Your task to perform on an android device: Empty the shopping cart on amazon. Search for usb-a on amazon, select the first entry, add it to the cart, then select checkout. Image 0: 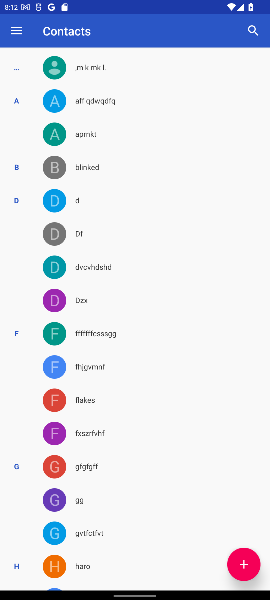
Step 0: press home button
Your task to perform on an android device: Empty the shopping cart on amazon. Search for usb-a on amazon, select the first entry, add it to the cart, then select checkout. Image 1: 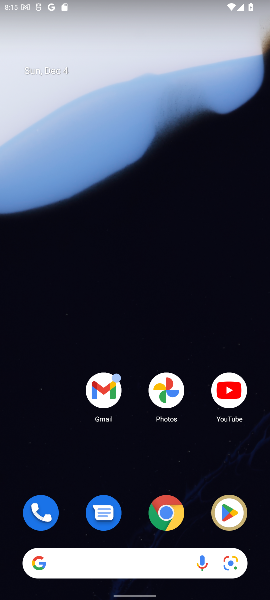
Step 1: click (160, 514)
Your task to perform on an android device: Empty the shopping cart on amazon. Search for usb-a on amazon, select the first entry, add it to the cart, then select checkout. Image 2: 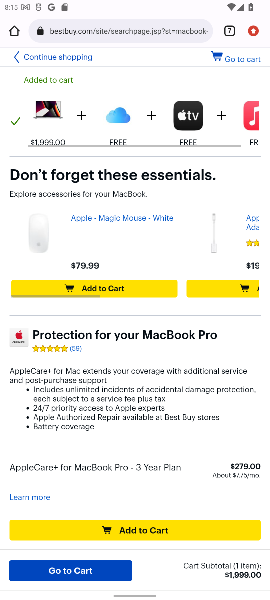
Step 2: click (229, 31)
Your task to perform on an android device: Empty the shopping cart on amazon. Search for usb-a on amazon, select the first entry, add it to the cart, then select checkout. Image 3: 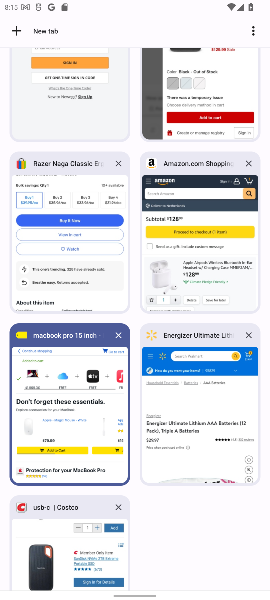
Step 3: click (209, 223)
Your task to perform on an android device: Empty the shopping cart on amazon. Search for usb-a on amazon, select the first entry, add it to the cart, then select checkout. Image 4: 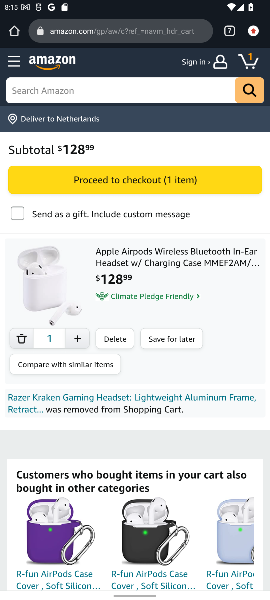
Step 4: click (114, 340)
Your task to perform on an android device: Empty the shopping cart on amazon. Search for usb-a on amazon, select the first entry, add it to the cart, then select checkout. Image 5: 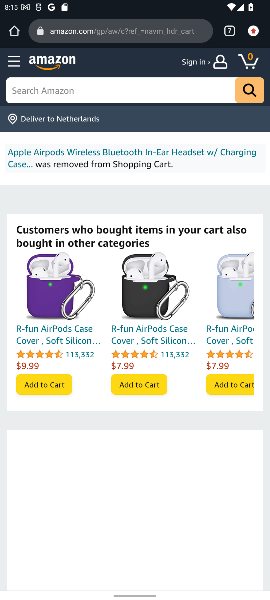
Step 5: click (157, 95)
Your task to perform on an android device: Empty the shopping cart on amazon. Search for usb-a on amazon, select the first entry, add it to the cart, then select checkout. Image 6: 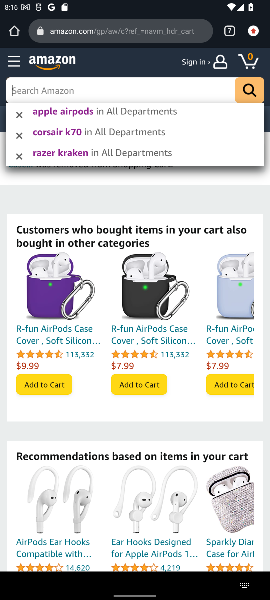
Step 6: type "usb-a "
Your task to perform on an android device: Empty the shopping cart on amazon. Search for usb-a on amazon, select the first entry, add it to the cart, then select checkout. Image 7: 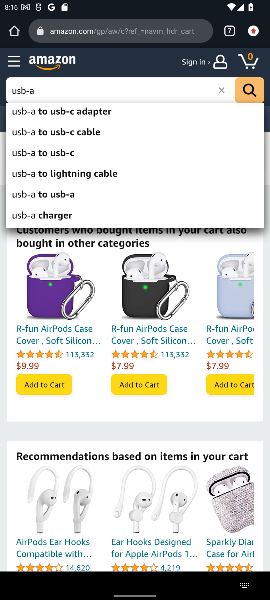
Step 7: click (246, 85)
Your task to perform on an android device: Empty the shopping cart on amazon. Search for usb-a on amazon, select the first entry, add it to the cart, then select checkout. Image 8: 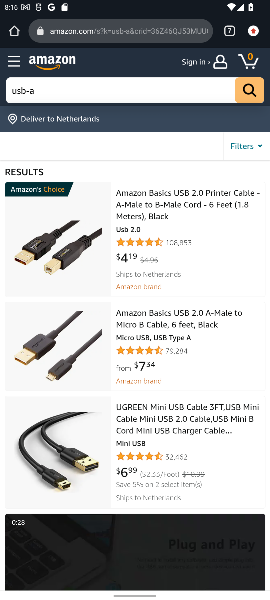
Step 8: click (151, 208)
Your task to perform on an android device: Empty the shopping cart on amazon. Search for usb-a on amazon, select the first entry, add it to the cart, then select checkout. Image 9: 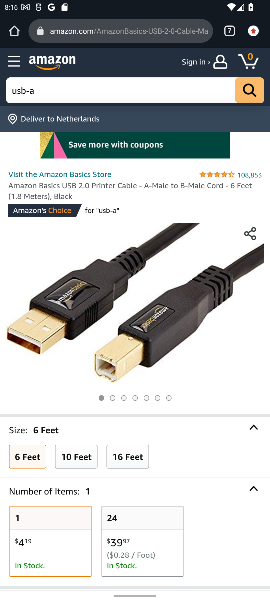
Step 9: drag from (202, 469) to (258, 81)
Your task to perform on an android device: Empty the shopping cart on amazon. Search for usb-a on amazon, select the first entry, add it to the cart, then select checkout. Image 10: 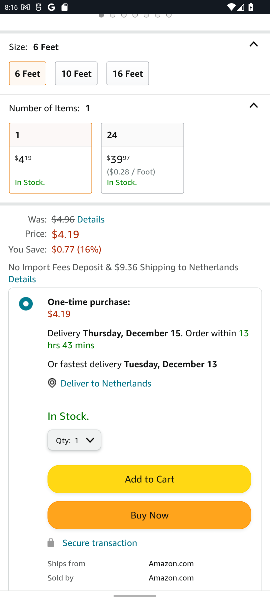
Step 10: click (185, 482)
Your task to perform on an android device: Empty the shopping cart on amazon. Search for usb-a on amazon, select the first entry, add it to the cart, then select checkout. Image 11: 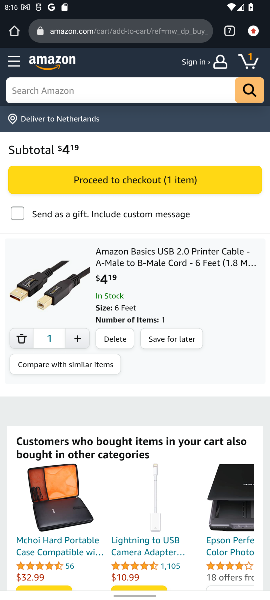
Step 11: task complete